Your task to perform on an android device: turn off notifications in google photos Image 0: 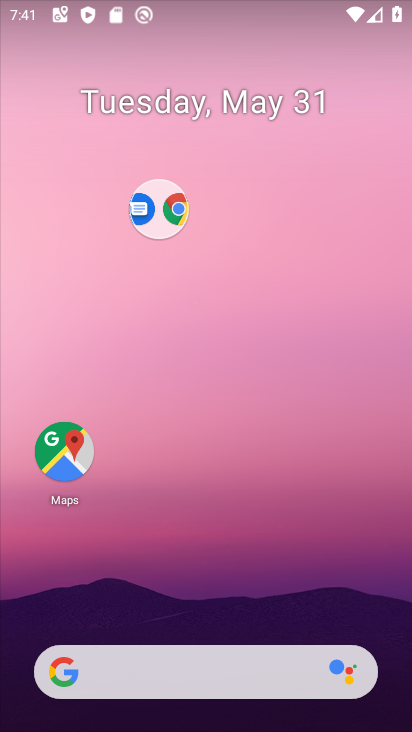
Step 0: drag from (183, 614) to (100, 85)
Your task to perform on an android device: turn off notifications in google photos Image 1: 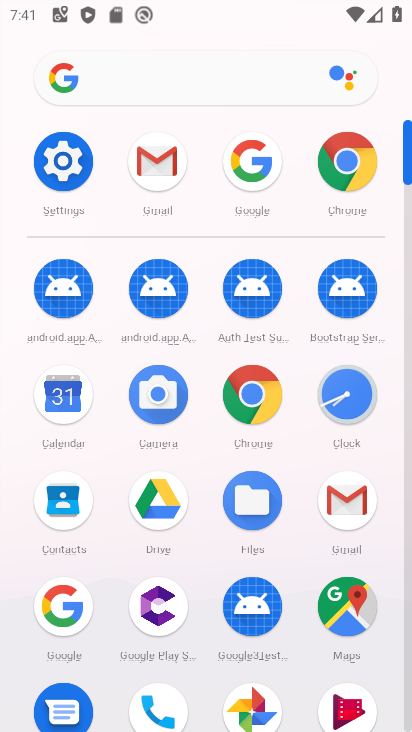
Step 1: click (248, 715)
Your task to perform on an android device: turn off notifications in google photos Image 2: 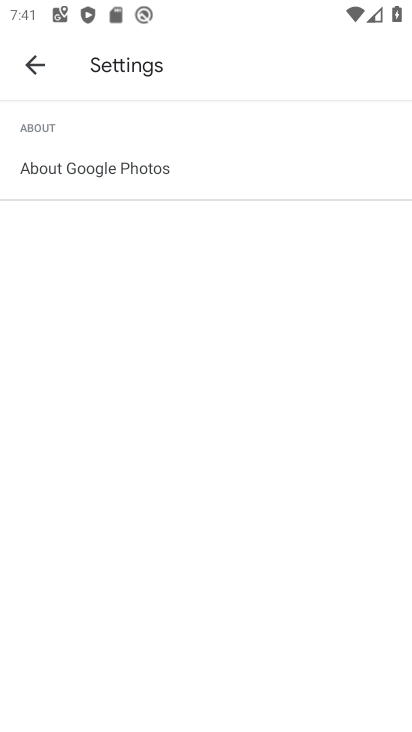
Step 2: click (27, 72)
Your task to perform on an android device: turn off notifications in google photos Image 3: 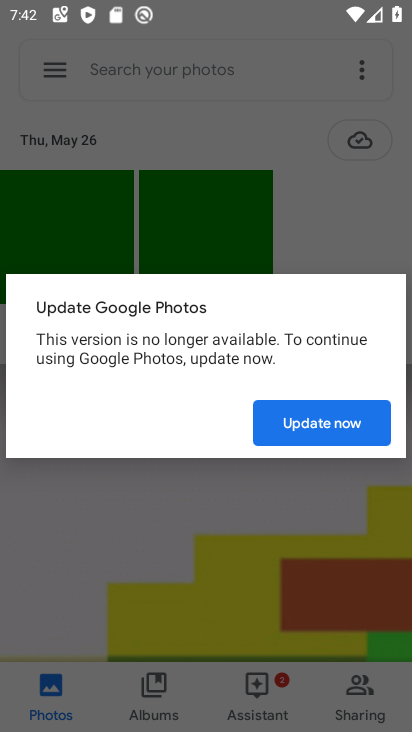
Step 3: click (125, 511)
Your task to perform on an android device: turn off notifications in google photos Image 4: 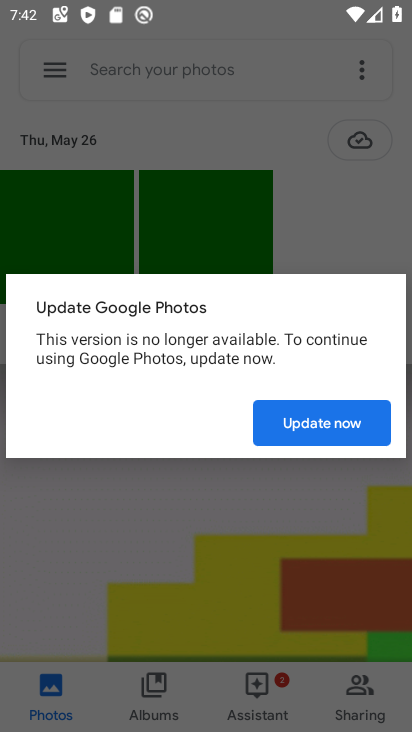
Step 4: press back button
Your task to perform on an android device: turn off notifications in google photos Image 5: 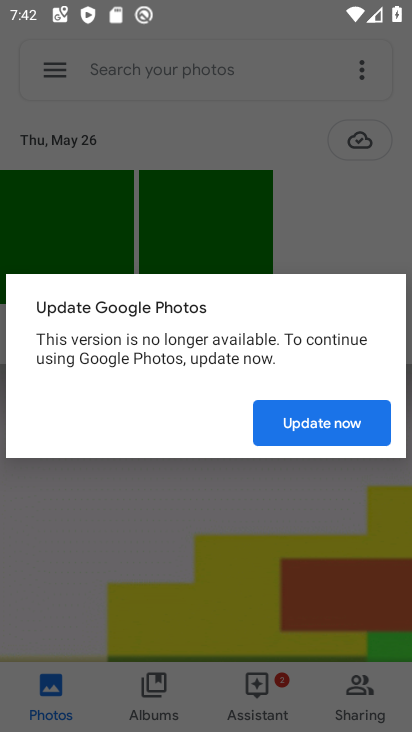
Step 5: press back button
Your task to perform on an android device: turn off notifications in google photos Image 6: 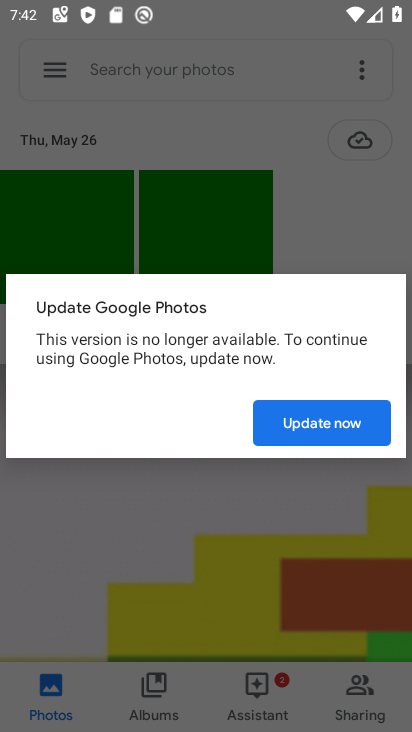
Step 6: press back button
Your task to perform on an android device: turn off notifications in google photos Image 7: 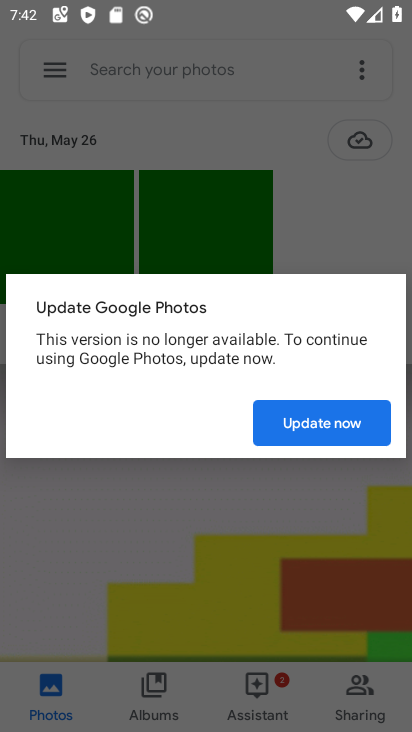
Step 7: press back button
Your task to perform on an android device: turn off notifications in google photos Image 8: 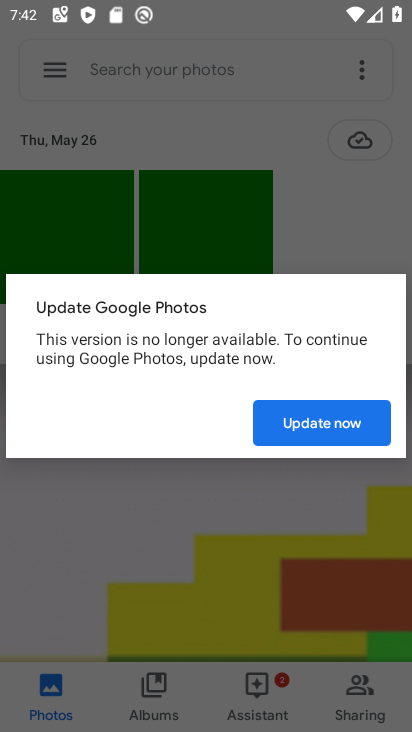
Step 8: press back button
Your task to perform on an android device: turn off notifications in google photos Image 9: 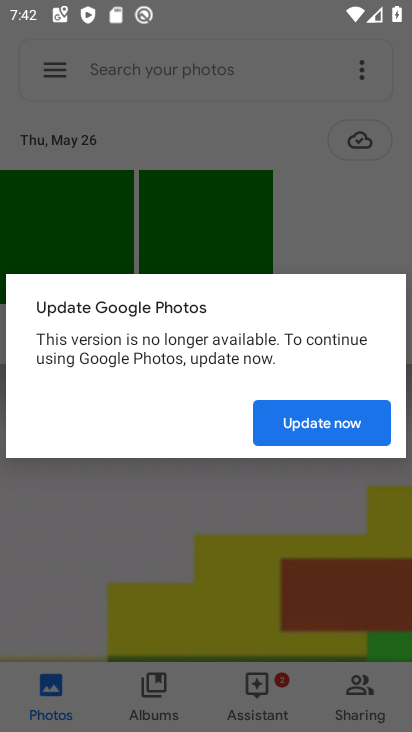
Step 9: press back button
Your task to perform on an android device: turn off notifications in google photos Image 10: 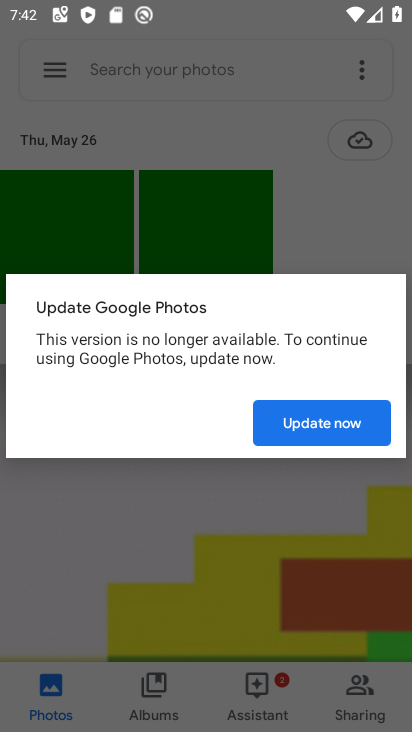
Step 10: click (303, 403)
Your task to perform on an android device: turn off notifications in google photos Image 11: 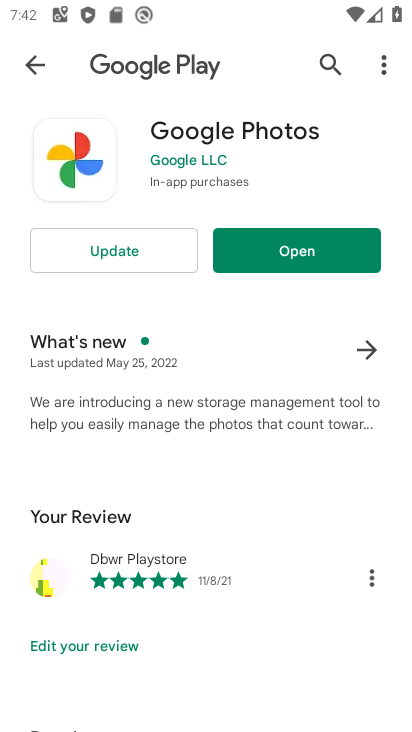
Step 11: click (297, 259)
Your task to perform on an android device: turn off notifications in google photos Image 12: 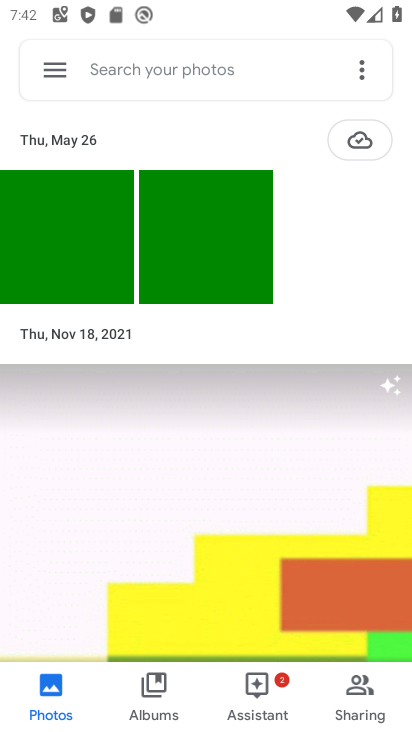
Step 12: click (58, 77)
Your task to perform on an android device: turn off notifications in google photos Image 13: 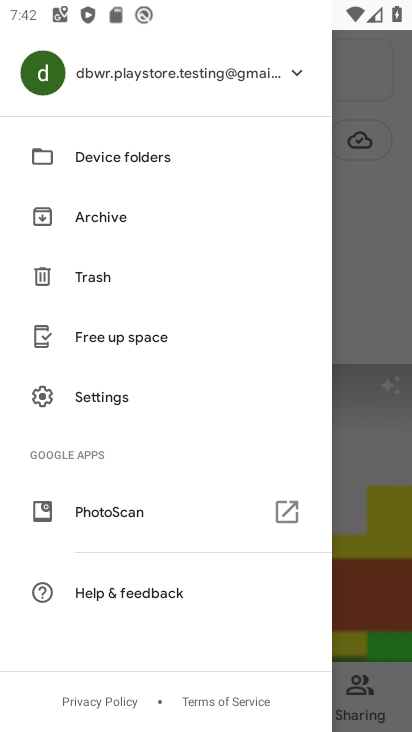
Step 13: click (95, 404)
Your task to perform on an android device: turn off notifications in google photos Image 14: 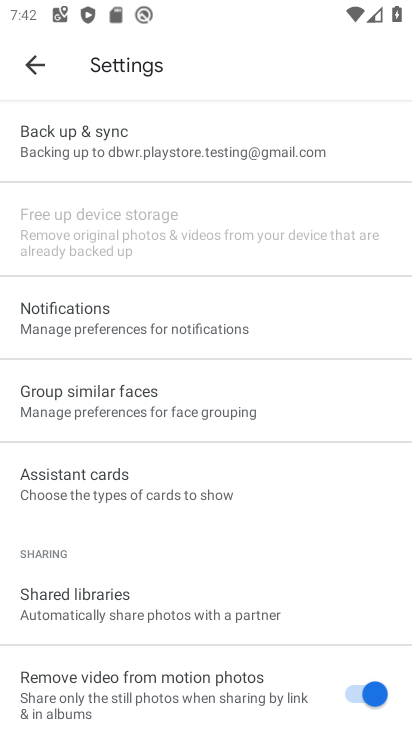
Step 14: click (108, 324)
Your task to perform on an android device: turn off notifications in google photos Image 15: 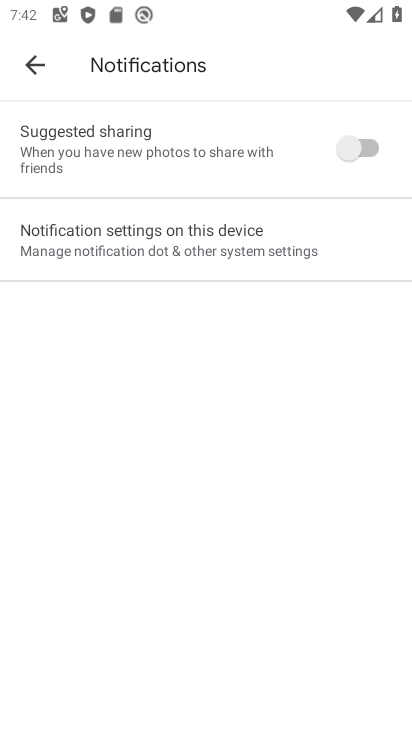
Step 15: click (288, 229)
Your task to perform on an android device: turn off notifications in google photos Image 16: 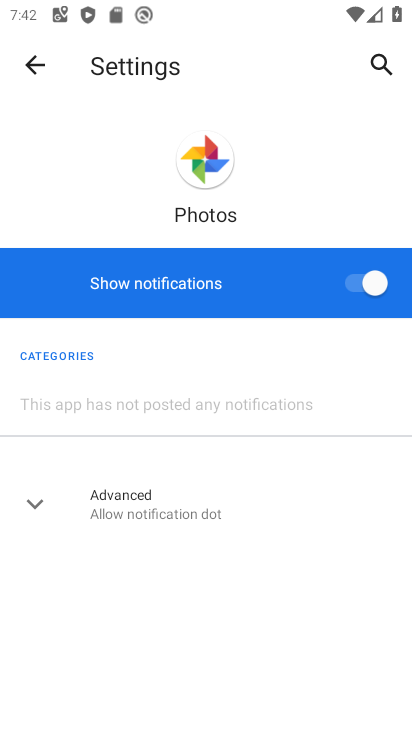
Step 16: click (361, 283)
Your task to perform on an android device: turn off notifications in google photos Image 17: 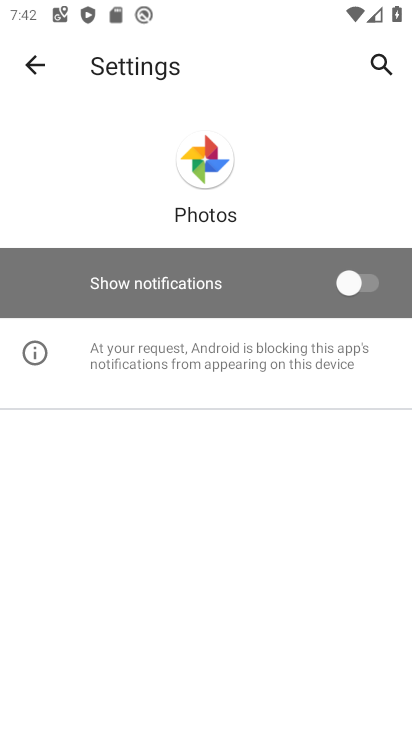
Step 17: task complete